Your task to perform on an android device: set the timer Image 0: 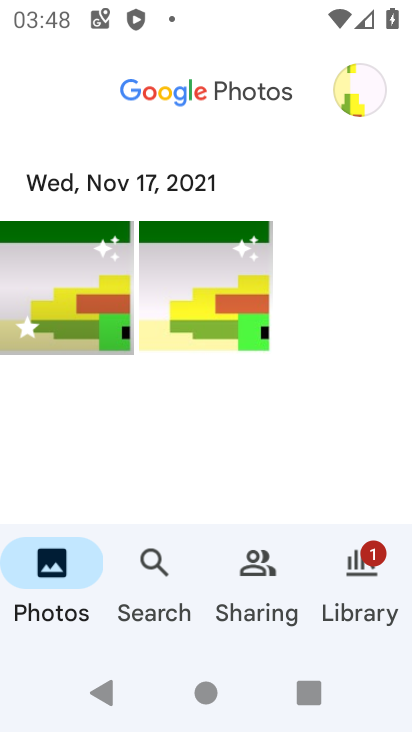
Step 0: press home button
Your task to perform on an android device: set the timer Image 1: 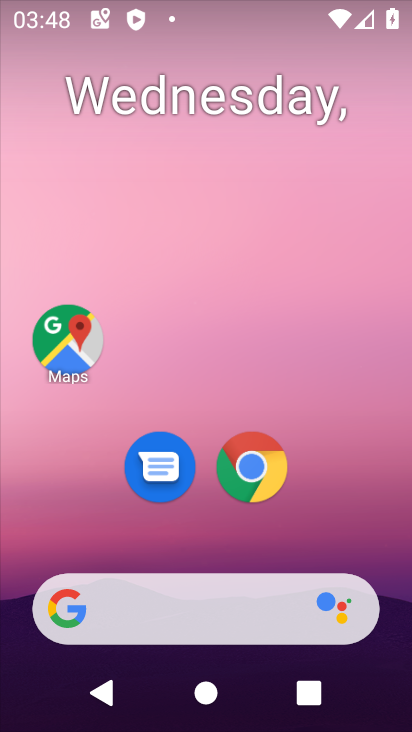
Step 1: drag from (389, 591) to (255, 144)
Your task to perform on an android device: set the timer Image 2: 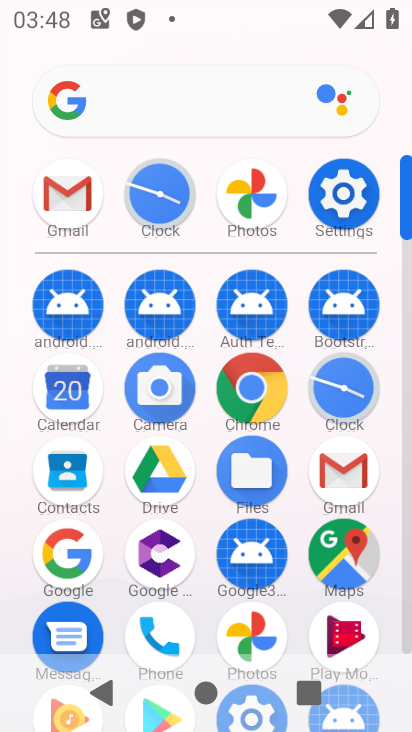
Step 2: click (410, 640)
Your task to perform on an android device: set the timer Image 3: 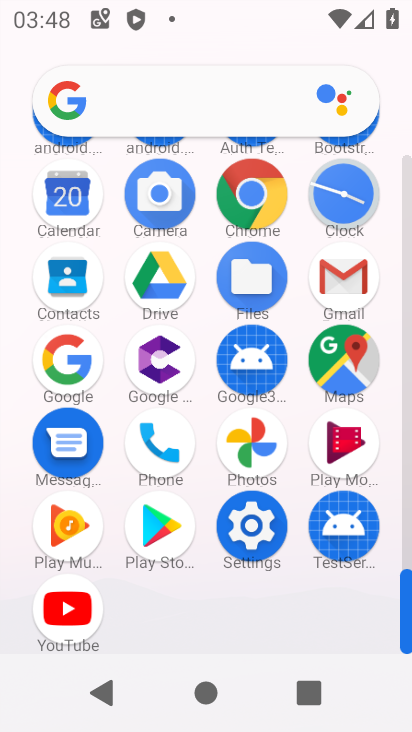
Step 3: click (345, 192)
Your task to perform on an android device: set the timer Image 4: 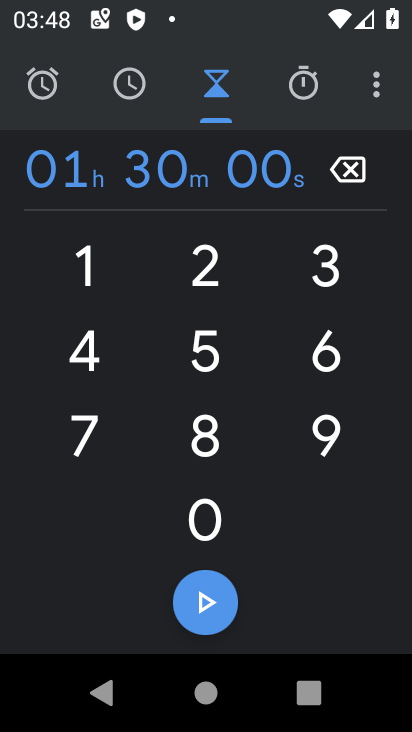
Step 4: click (345, 165)
Your task to perform on an android device: set the timer Image 5: 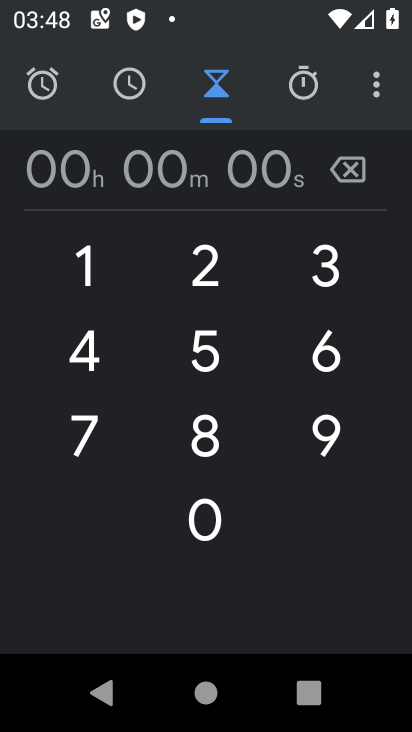
Step 5: click (216, 261)
Your task to perform on an android device: set the timer Image 6: 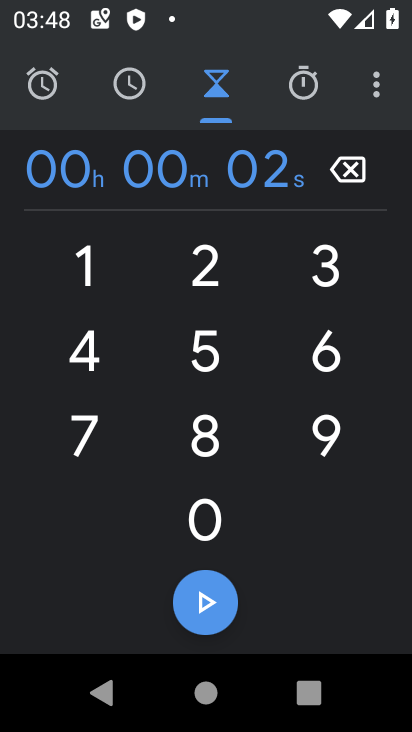
Step 6: click (340, 268)
Your task to perform on an android device: set the timer Image 7: 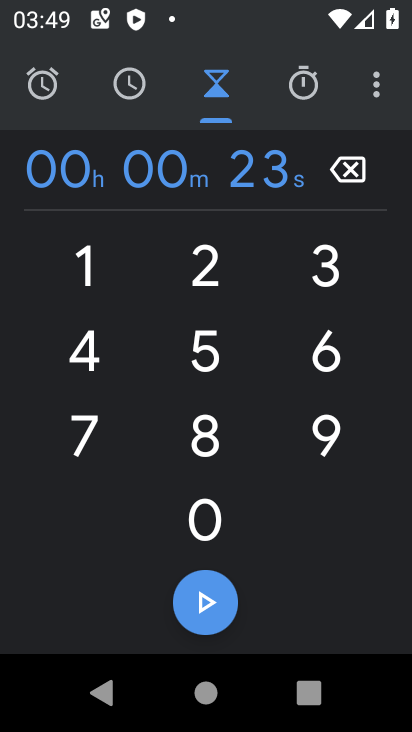
Step 7: click (204, 521)
Your task to perform on an android device: set the timer Image 8: 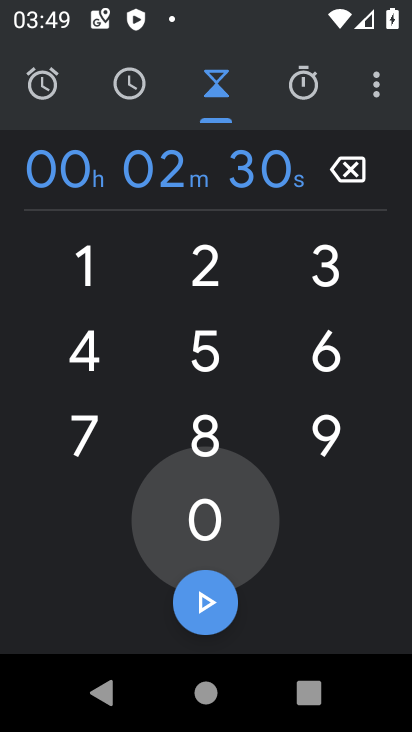
Step 8: click (204, 521)
Your task to perform on an android device: set the timer Image 9: 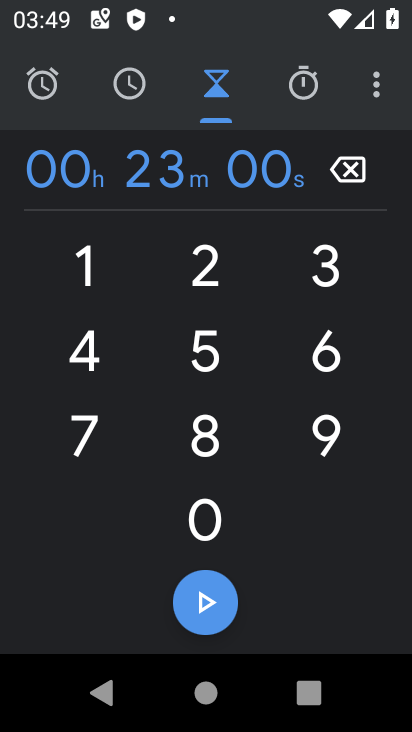
Step 9: click (204, 521)
Your task to perform on an android device: set the timer Image 10: 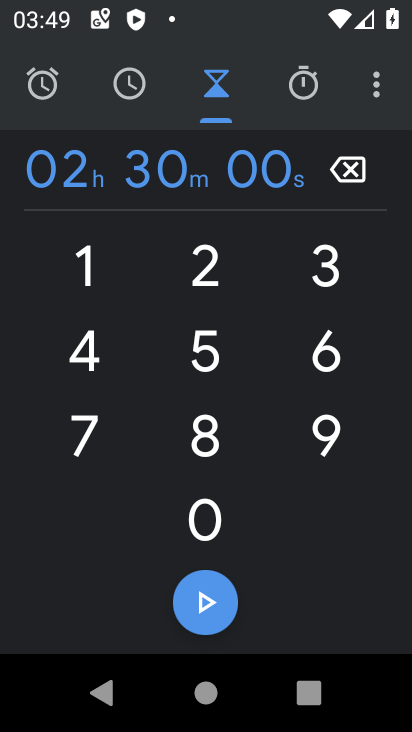
Step 10: task complete